Your task to perform on an android device: change timer sound Image 0: 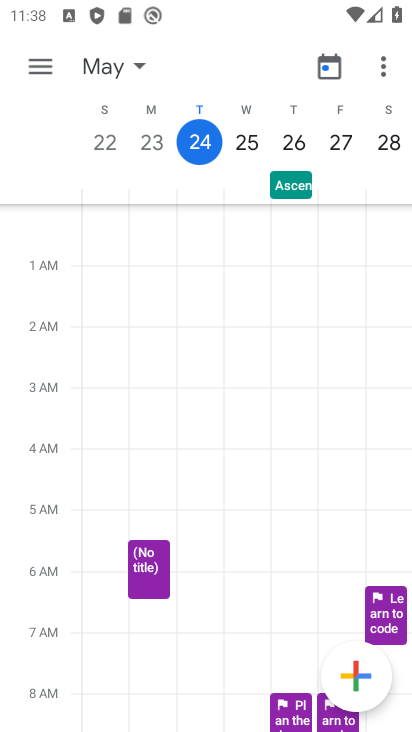
Step 0: press home button
Your task to perform on an android device: change timer sound Image 1: 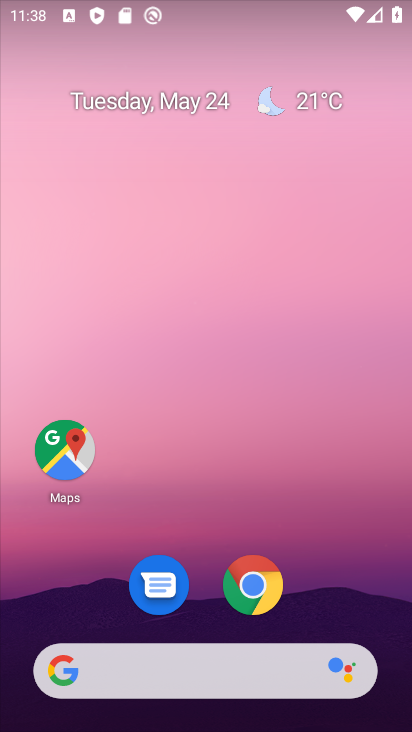
Step 1: drag from (227, 477) to (246, 61)
Your task to perform on an android device: change timer sound Image 2: 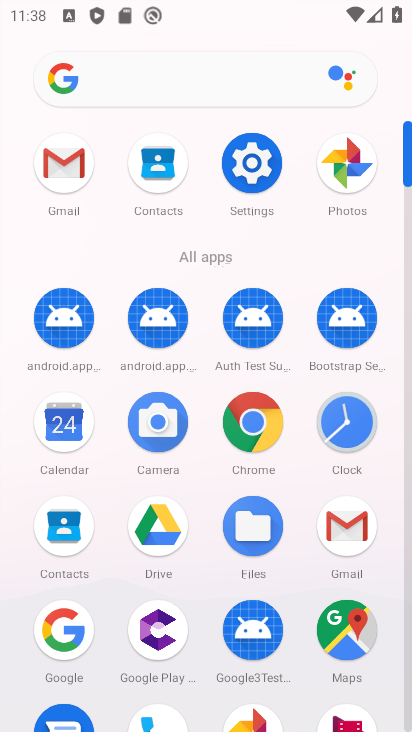
Step 2: click (348, 427)
Your task to perform on an android device: change timer sound Image 3: 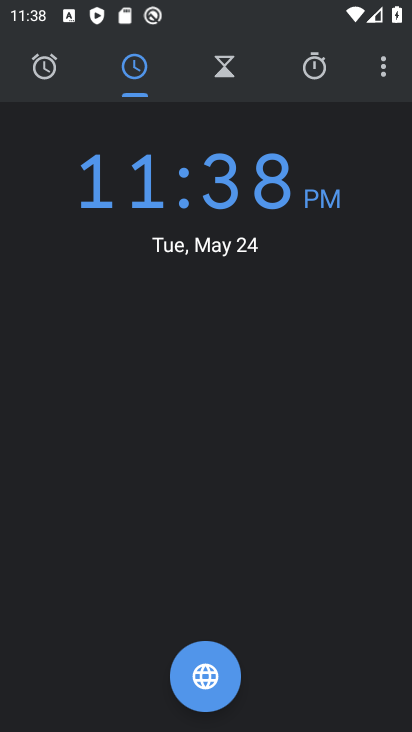
Step 3: click (391, 71)
Your task to perform on an android device: change timer sound Image 4: 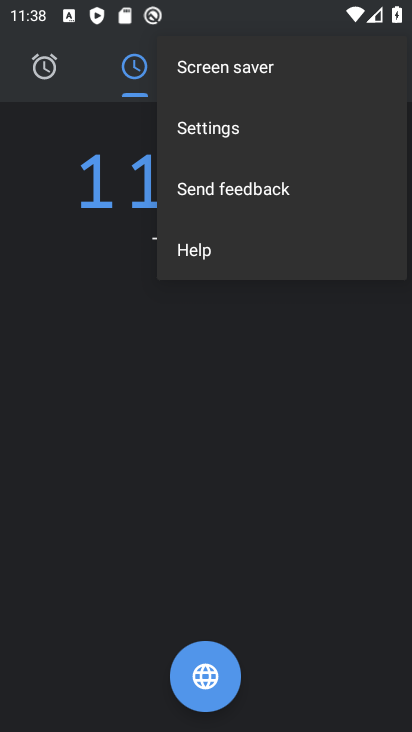
Step 4: click (316, 133)
Your task to perform on an android device: change timer sound Image 5: 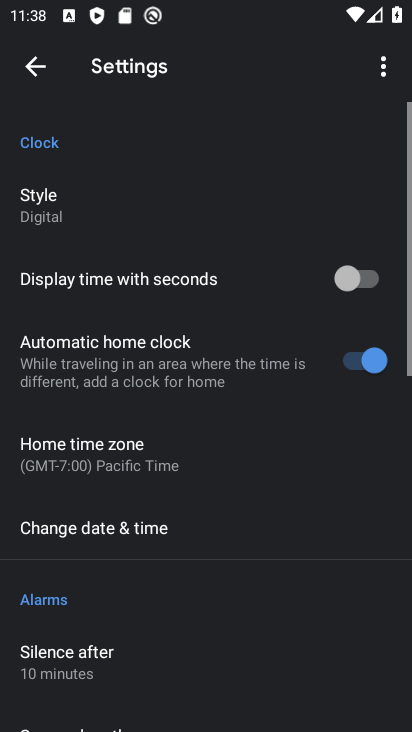
Step 5: drag from (283, 570) to (300, 0)
Your task to perform on an android device: change timer sound Image 6: 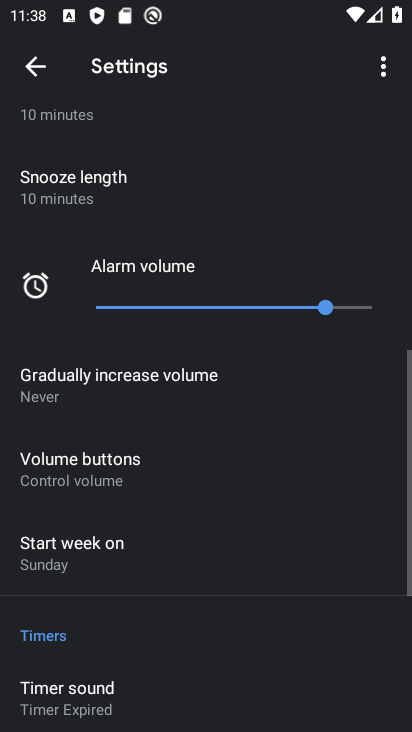
Step 6: drag from (245, 536) to (267, 201)
Your task to perform on an android device: change timer sound Image 7: 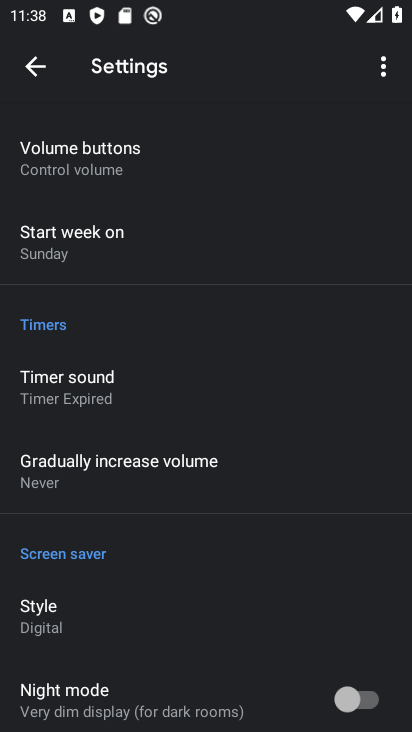
Step 7: click (125, 384)
Your task to perform on an android device: change timer sound Image 8: 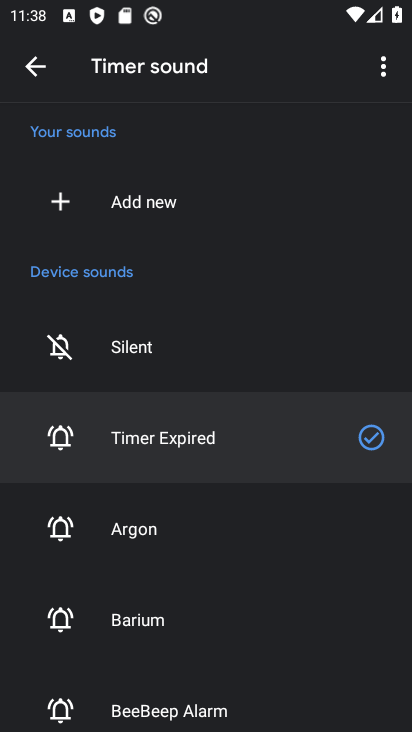
Step 8: click (123, 607)
Your task to perform on an android device: change timer sound Image 9: 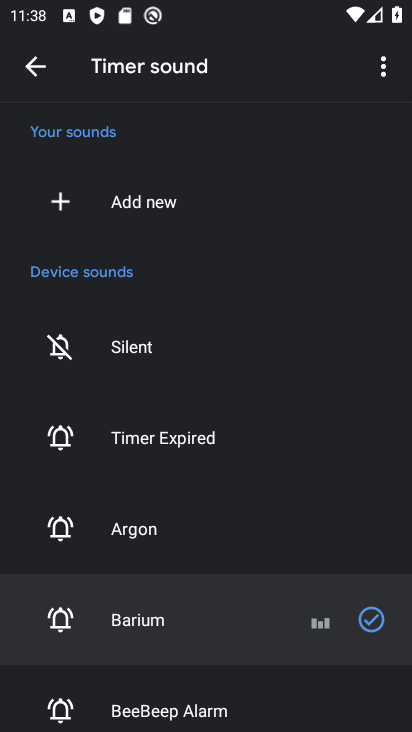
Step 9: task complete